Your task to perform on an android device: Go to accessibility settings Image 0: 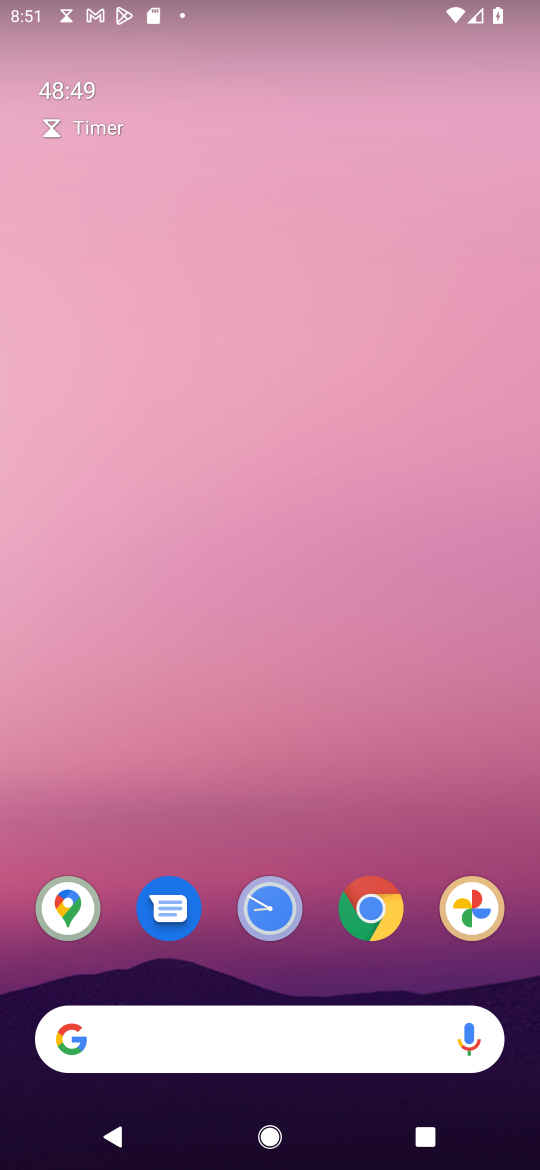
Step 0: drag from (232, 1010) to (382, 168)
Your task to perform on an android device: Go to accessibility settings Image 1: 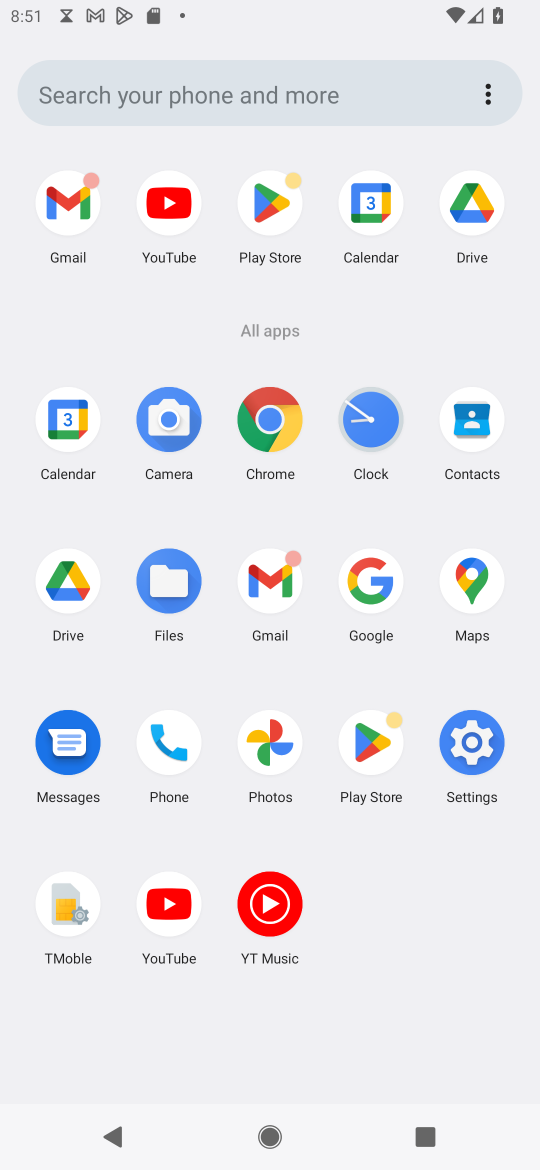
Step 1: click (472, 753)
Your task to perform on an android device: Go to accessibility settings Image 2: 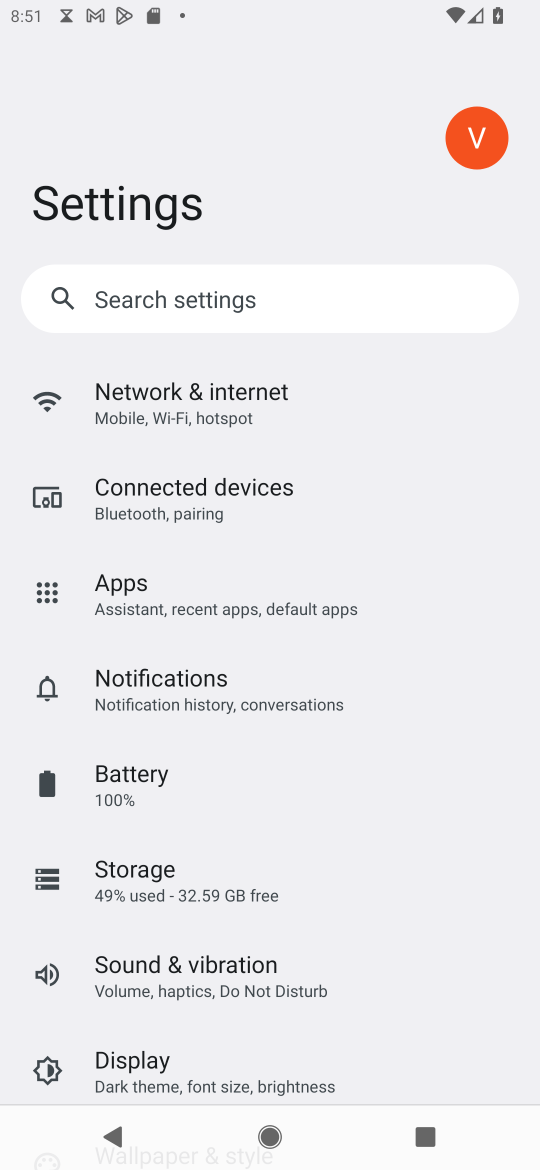
Step 2: drag from (298, 978) to (353, 206)
Your task to perform on an android device: Go to accessibility settings Image 3: 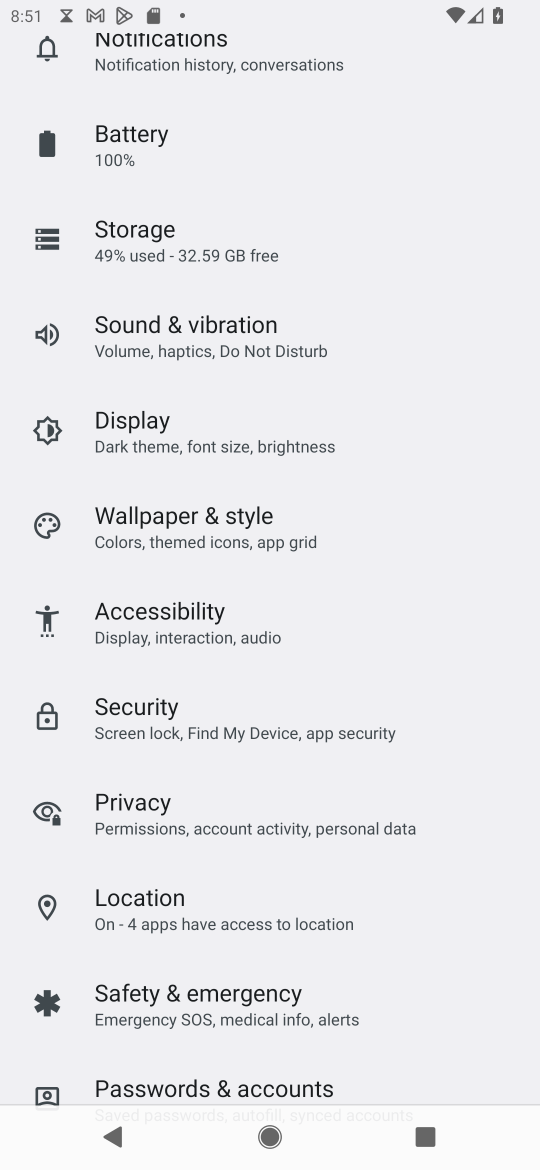
Step 3: click (209, 602)
Your task to perform on an android device: Go to accessibility settings Image 4: 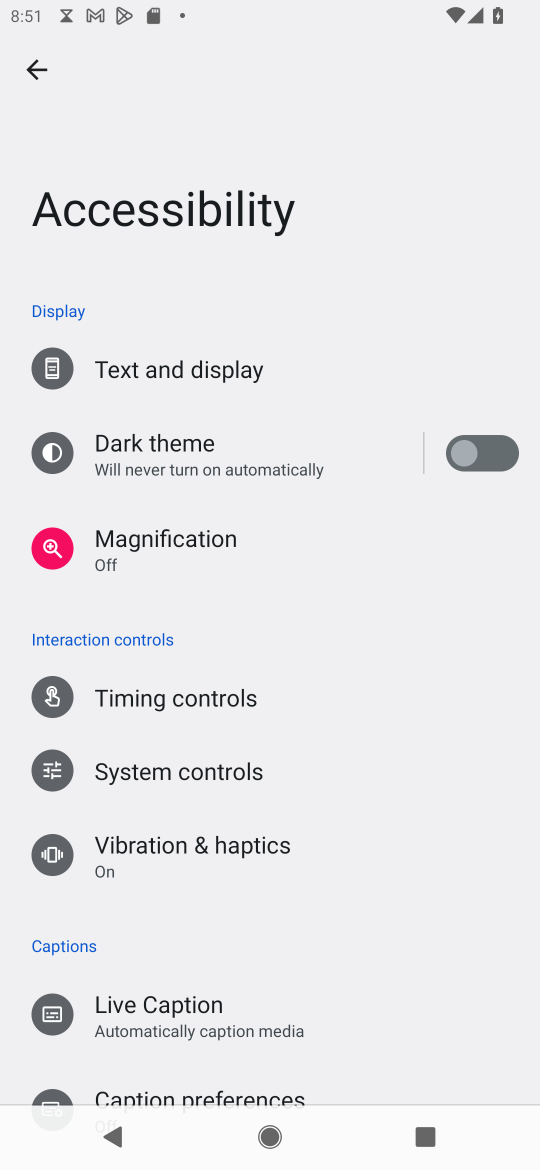
Step 4: task complete